Your task to perform on an android device: turn on location history Image 0: 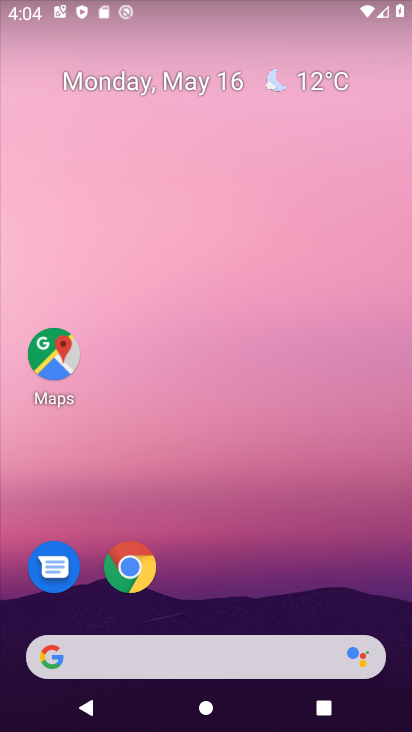
Step 0: drag from (207, 485) to (166, 0)
Your task to perform on an android device: turn on location history Image 1: 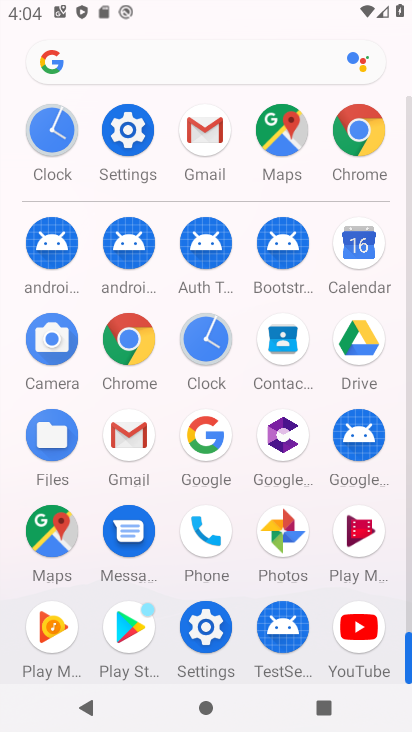
Step 1: click (206, 622)
Your task to perform on an android device: turn on location history Image 2: 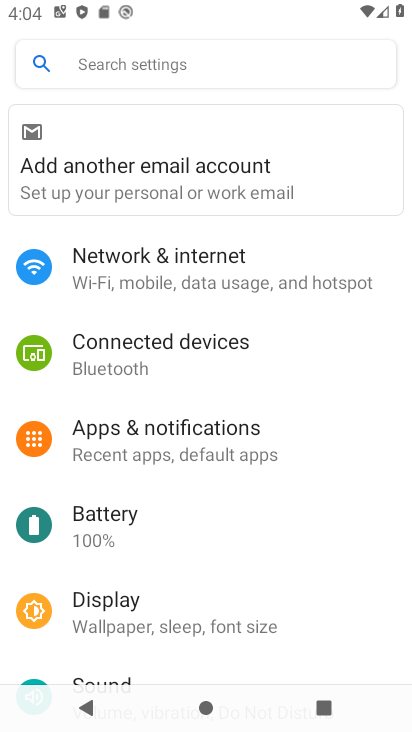
Step 2: drag from (273, 567) to (283, 177)
Your task to perform on an android device: turn on location history Image 3: 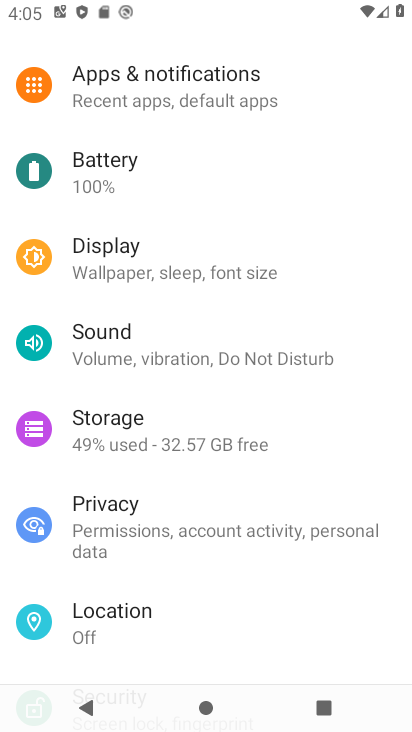
Step 3: click (144, 622)
Your task to perform on an android device: turn on location history Image 4: 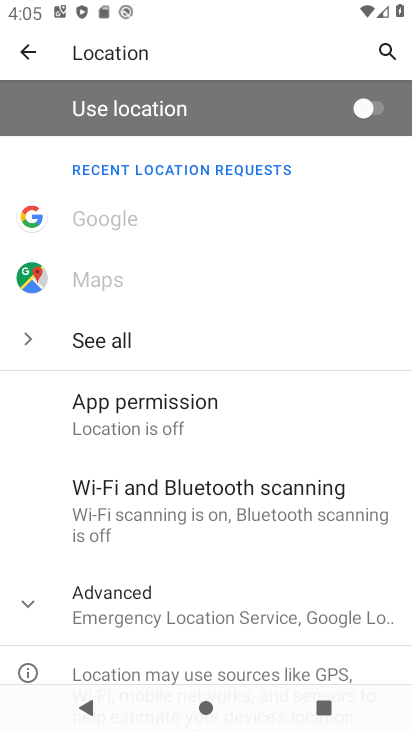
Step 4: click (176, 616)
Your task to perform on an android device: turn on location history Image 5: 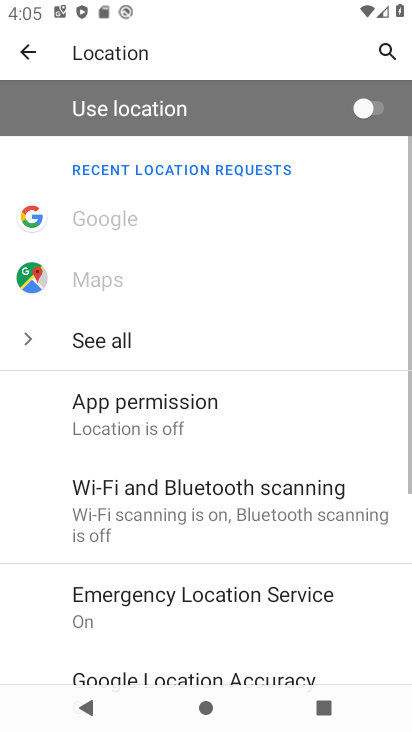
Step 5: drag from (261, 625) to (295, 262)
Your task to perform on an android device: turn on location history Image 6: 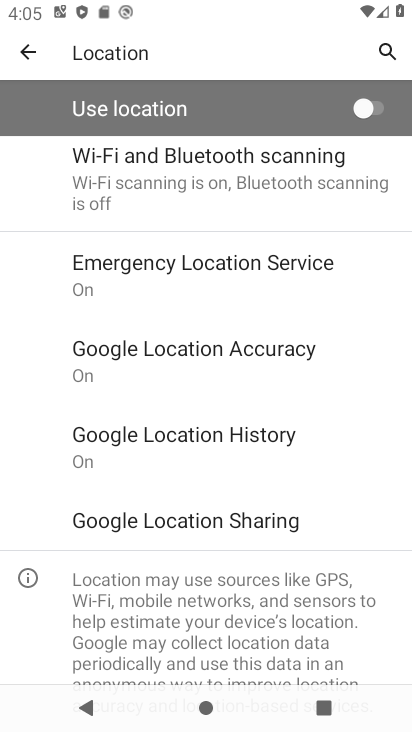
Step 6: drag from (267, 624) to (301, 321)
Your task to perform on an android device: turn on location history Image 7: 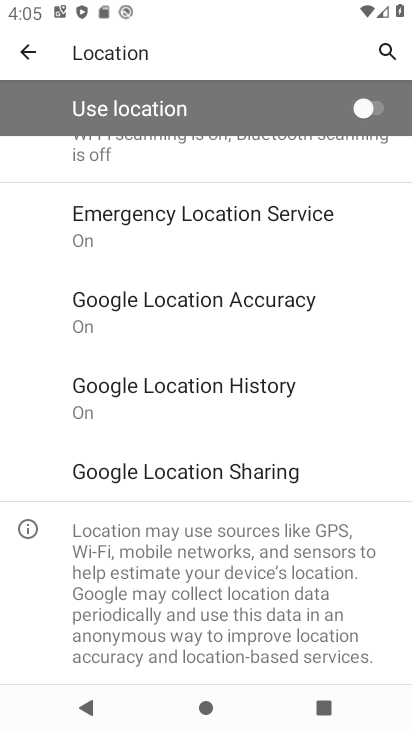
Step 7: click (215, 372)
Your task to perform on an android device: turn on location history Image 8: 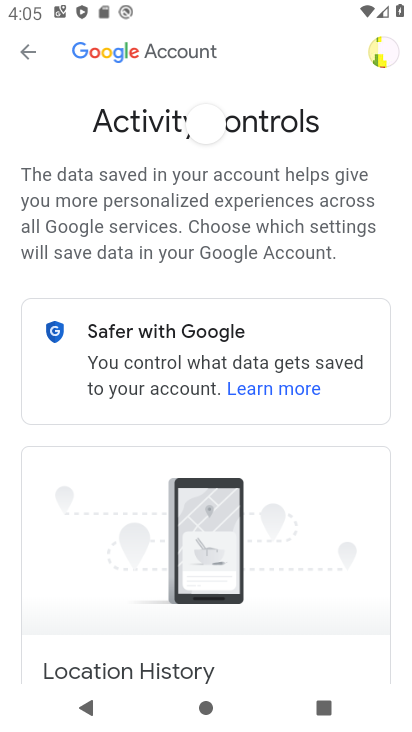
Step 8: drag from (132, 561) to (113, 89)
Your task to perform on an android device: turn on location history Image 9: 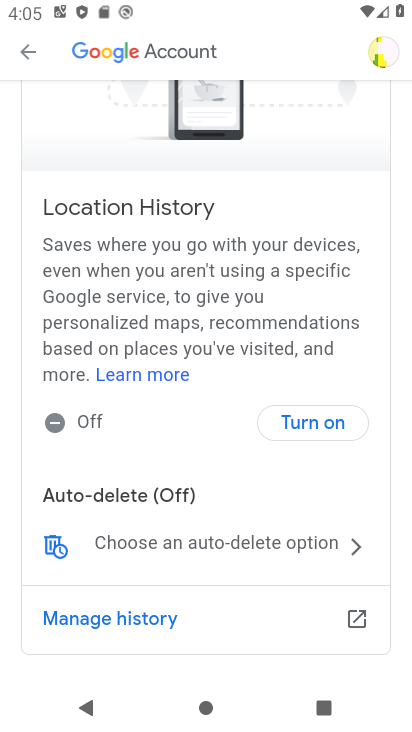
Step 9: click (314, 424)
Your task to perform on an android device: turn on location history Image 10: 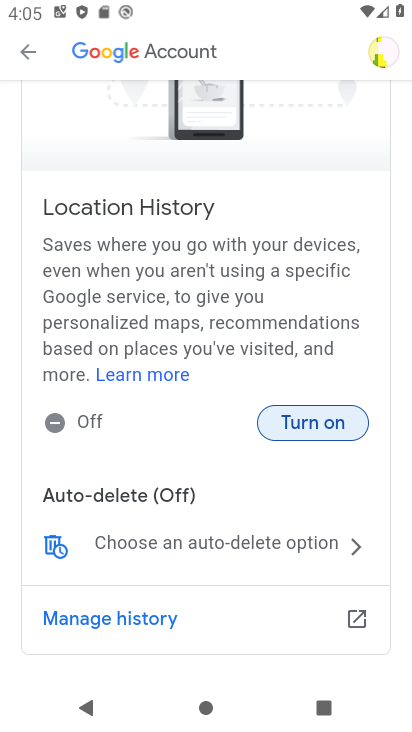
Step 10: click (314, 423)
Your task to perform on an android device: turn on location history Image 11: 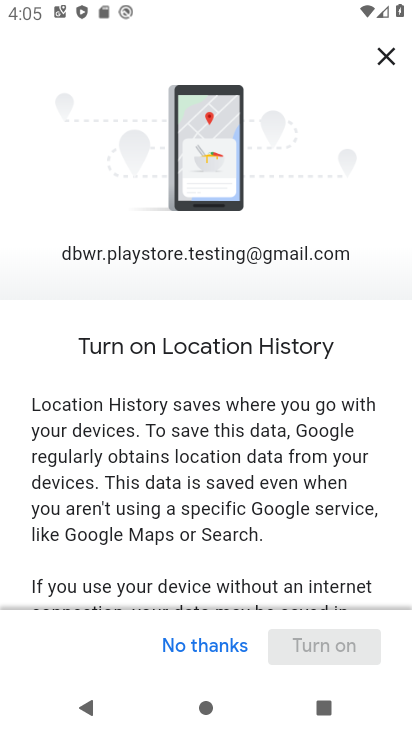
Step 11: drag from (280, 509) to (277, 105)
Your task to perform on an android device: turn on location history Image 12: 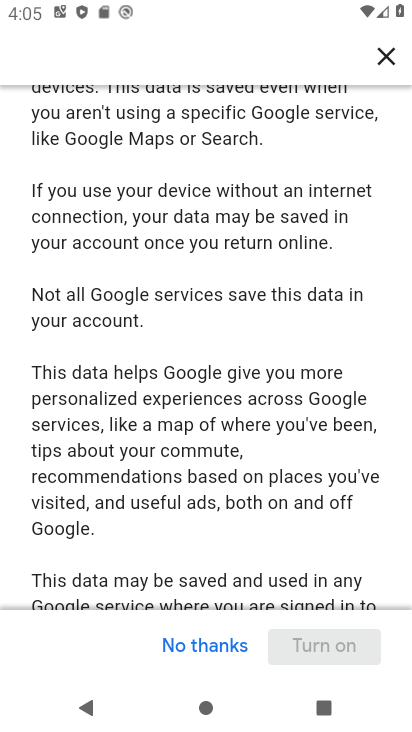
Step 12: drag from (218, 535) to (227, 94)
Your task to perform on an android device: turn on location history Image 13: 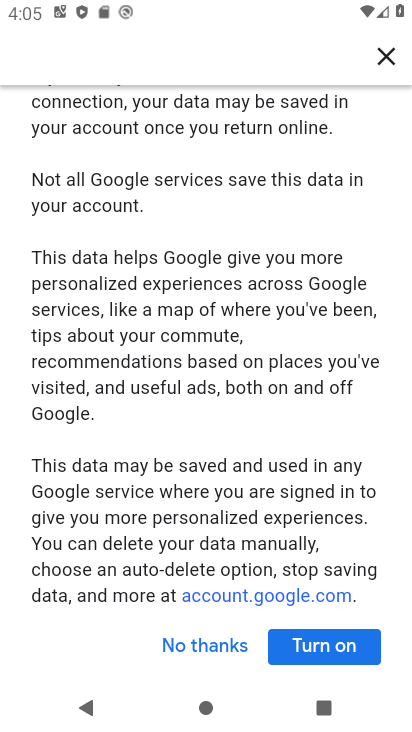
Step 13: click (320, 642)
Your task to perform on an android device: turn on location history Image 14: 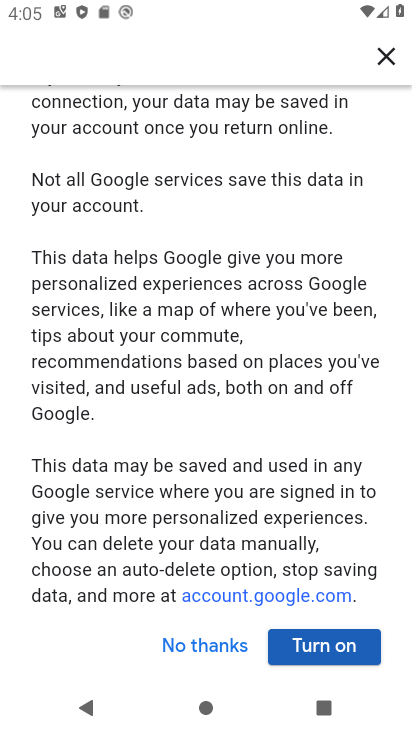
Step 14: click (339, 637)
Your task to perform on an android device: turn on location history Image 15: 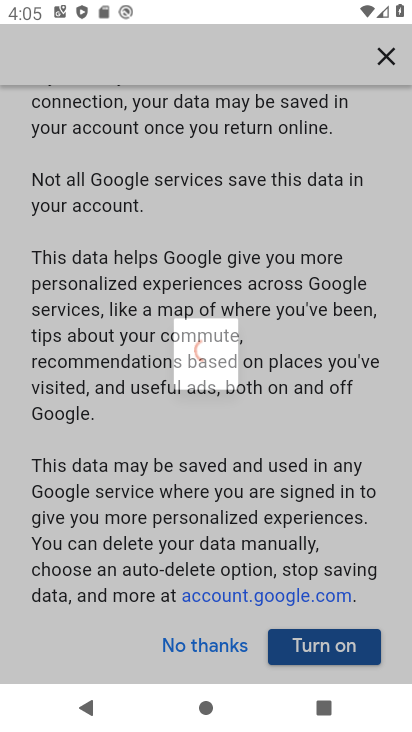
Step 15: click (338, 637)
Your task to perform on an android device: turn on location history Image 16: 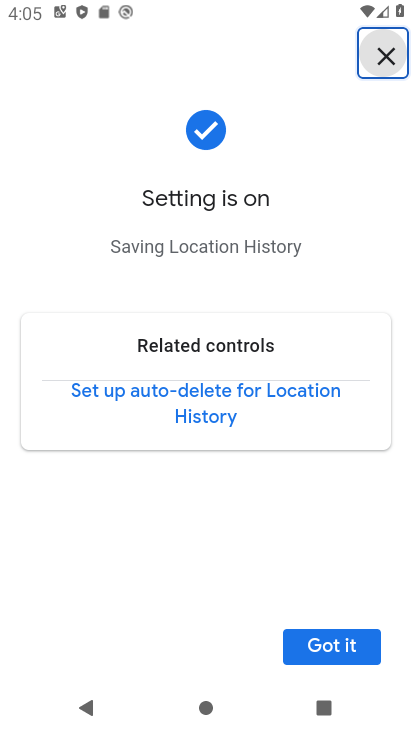
Step 16: task complete